Your task to perform on an android device: Check the news Image 0: 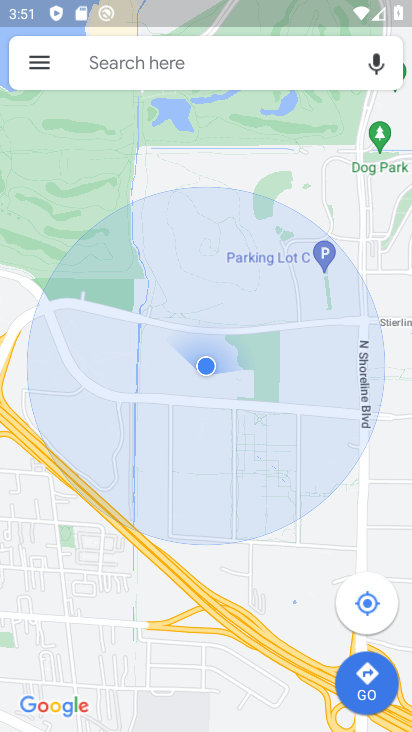
Step 0: press home button
Your task to perform on an android device: Check the news Image 1: 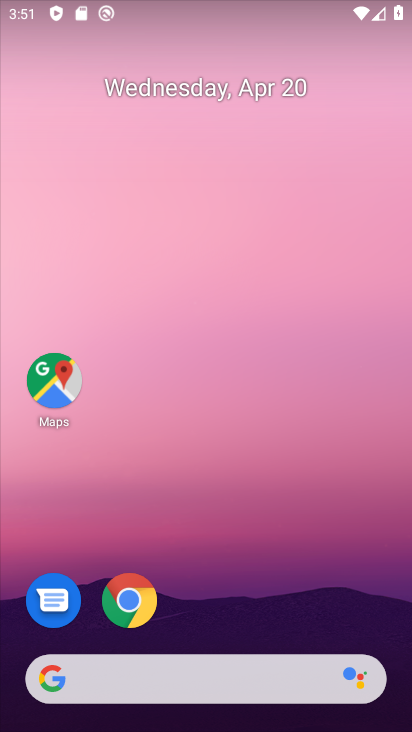
Step 1: task complete